Your task to perform on an android device: Search for good BBQ restaurants Image 0: 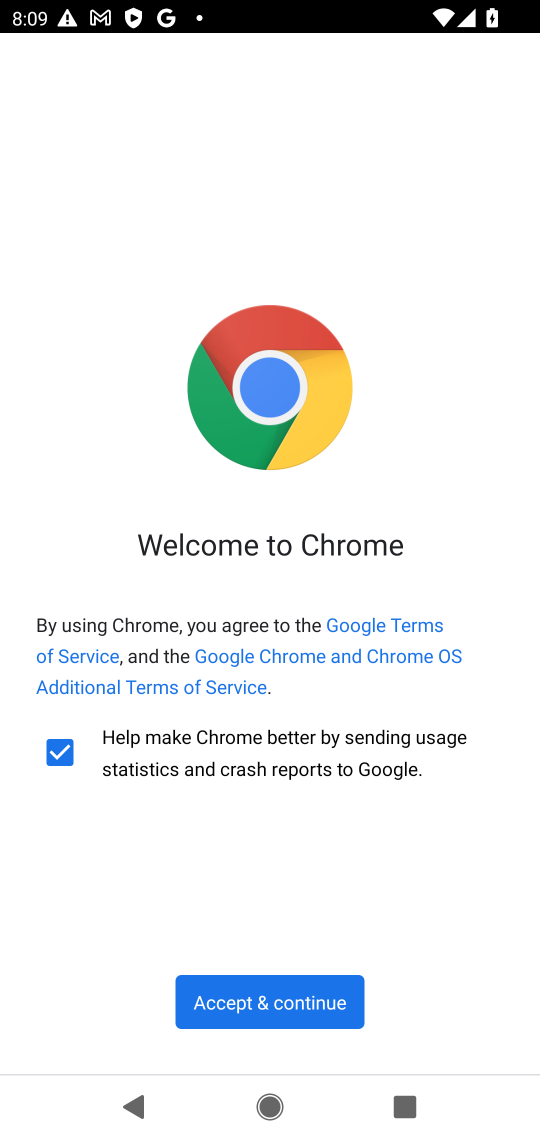
Step 0: press home button
Your task to perform on an android device: Search for good BBQ restaurants Image 1: 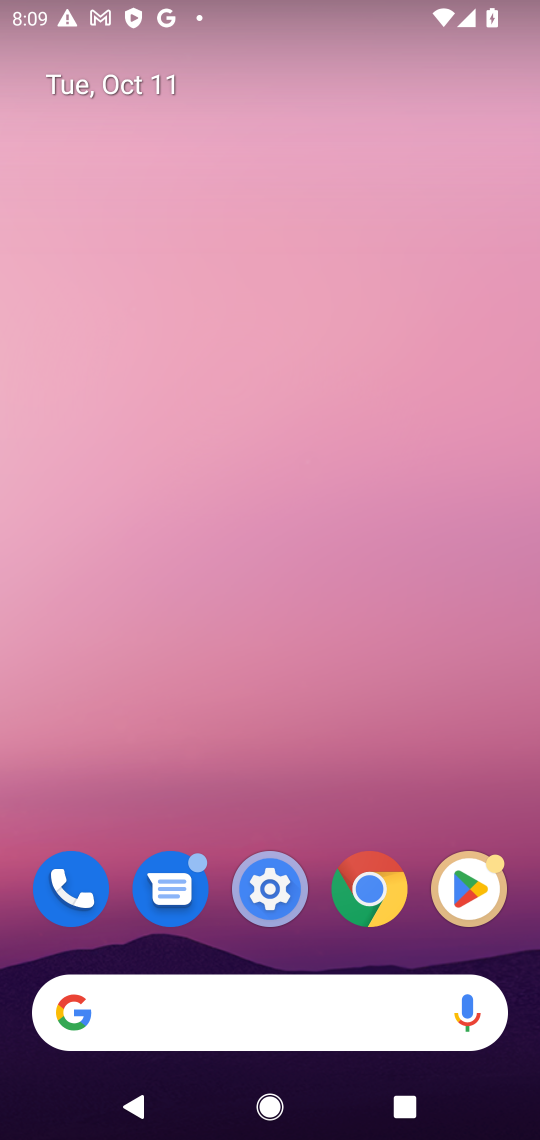
Step 1: click (223, 1012)
Your task to perform on an android device: Search for good BBQ restaurants Image 2: 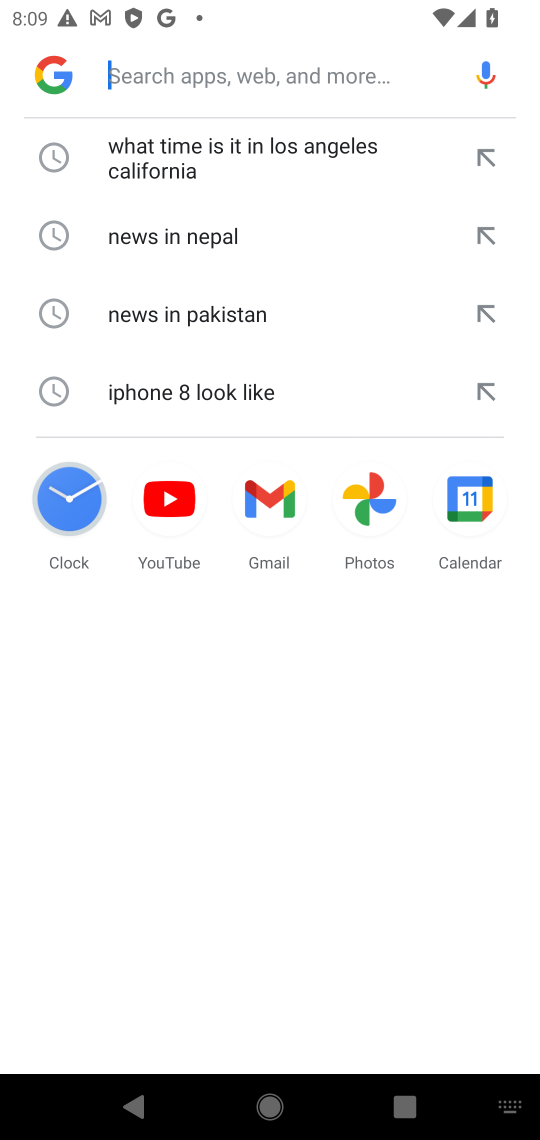
Step 2: click (249, 67)
Your task to perform on an android device: Search for good BBQ restaurants Image 3: 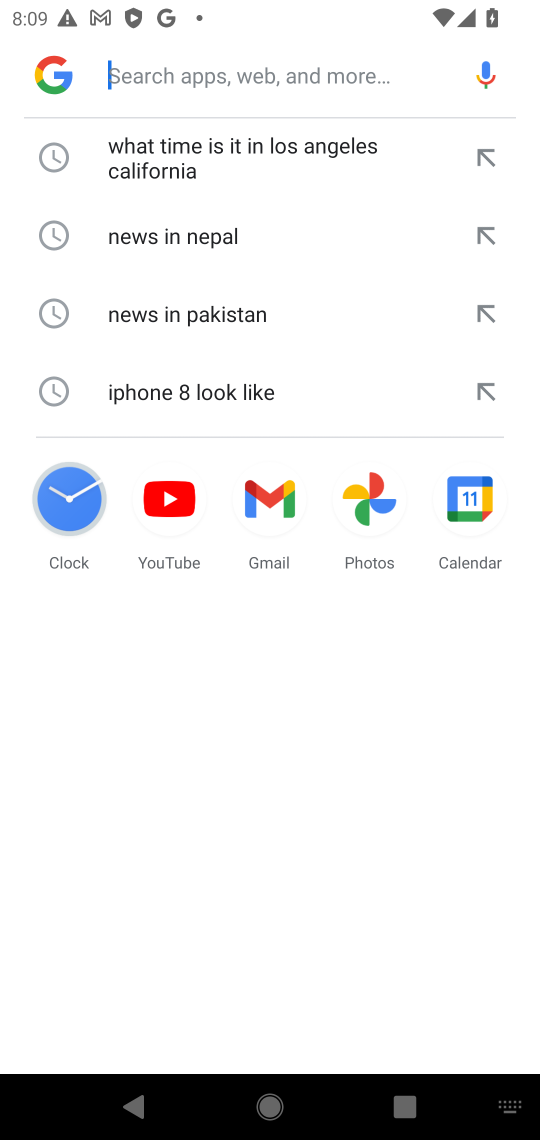
Step 3: type " good BBQ restaurants"
Your task to perform on an android device: Search for good BBQ restaurants Image 4: 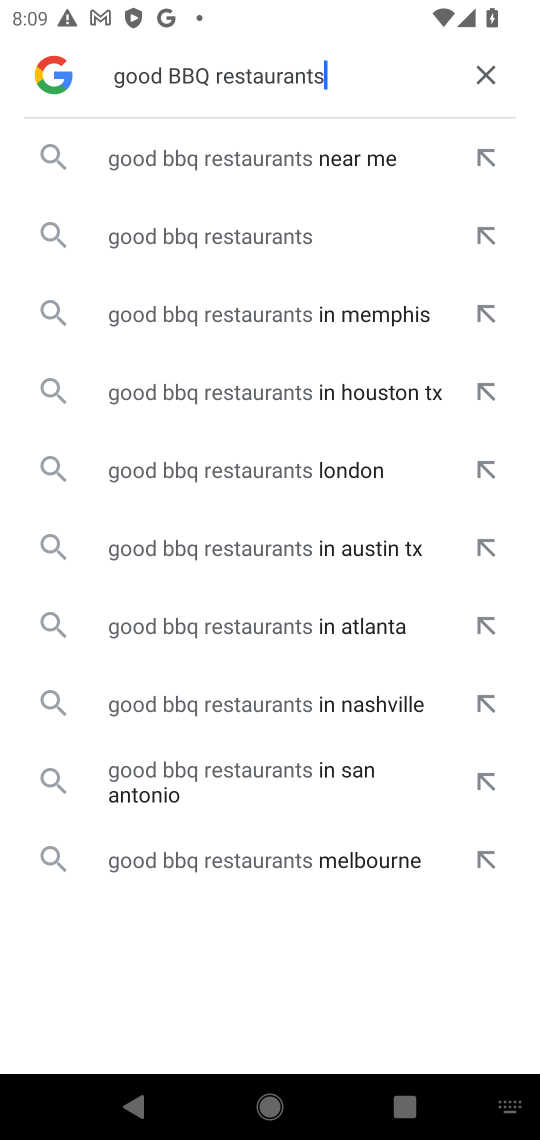
Step 4: click (225, 144)
Your task to perform on an android device: Search for good BBQ restaurants Image 5: 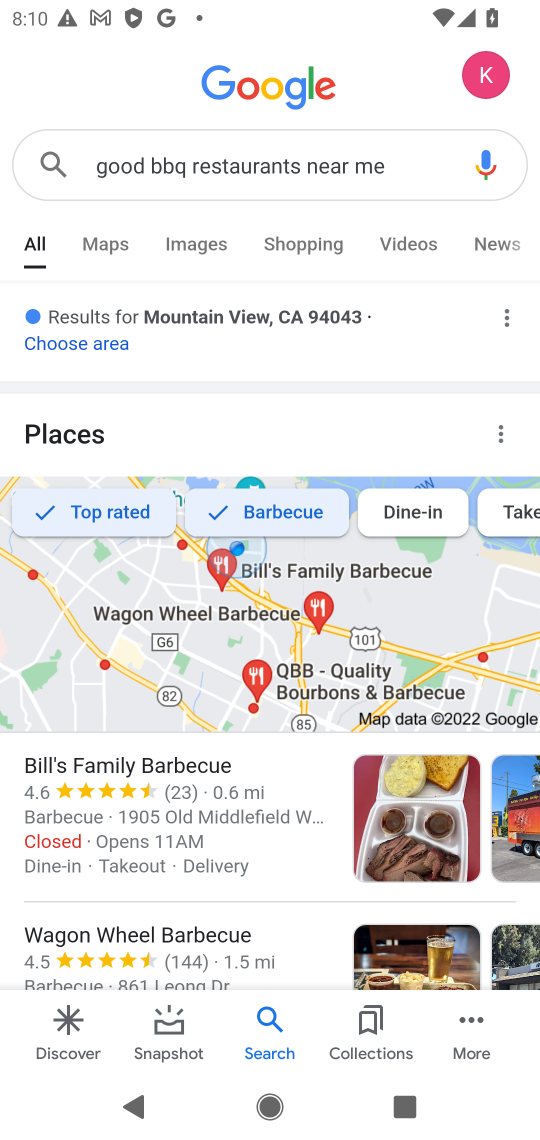
Step 5: task complete